Your task to perform on an android device: Open CNN.com Image 0: 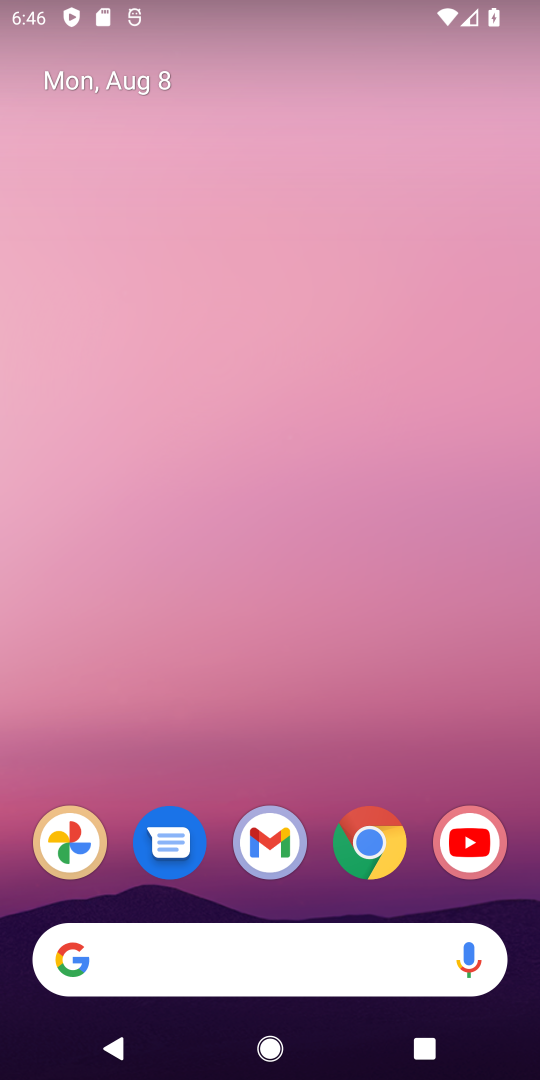
Step 0: drag from (226, 856) to (125, 140)
Your task to perform on an android device: Open CNN.com Image 1: 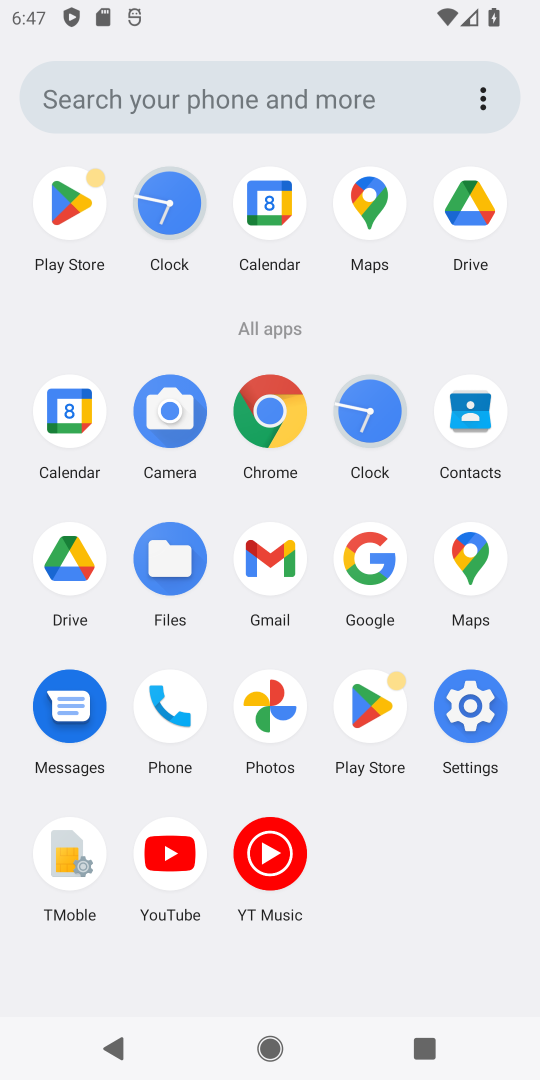
Step 1: click (276, 407)
Your task to perform on an android device: Open CNN.com Image 2: 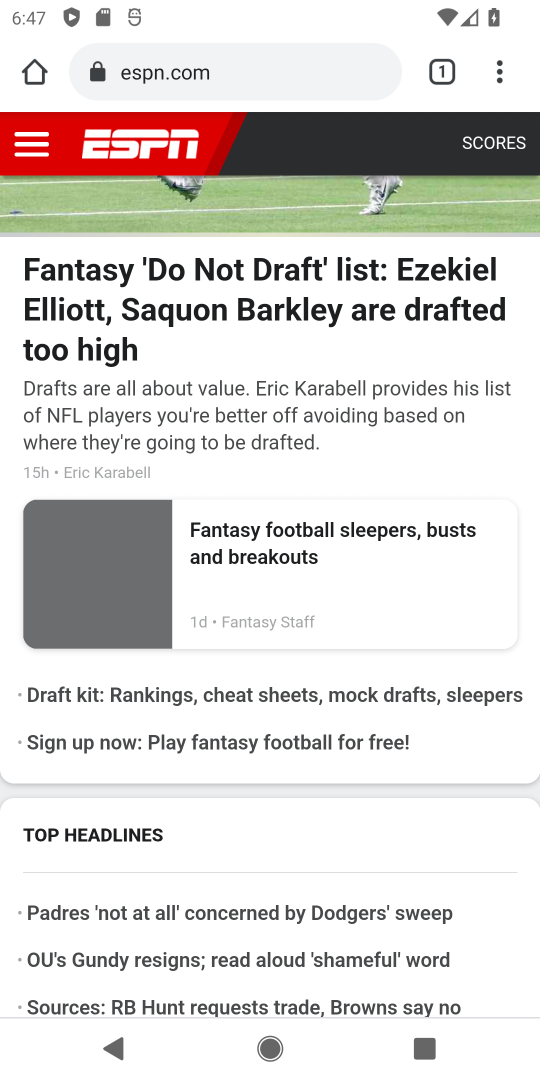
Step 2: click (423, 77)
Your task to perform on an android device: Open CNN.com Image 3: 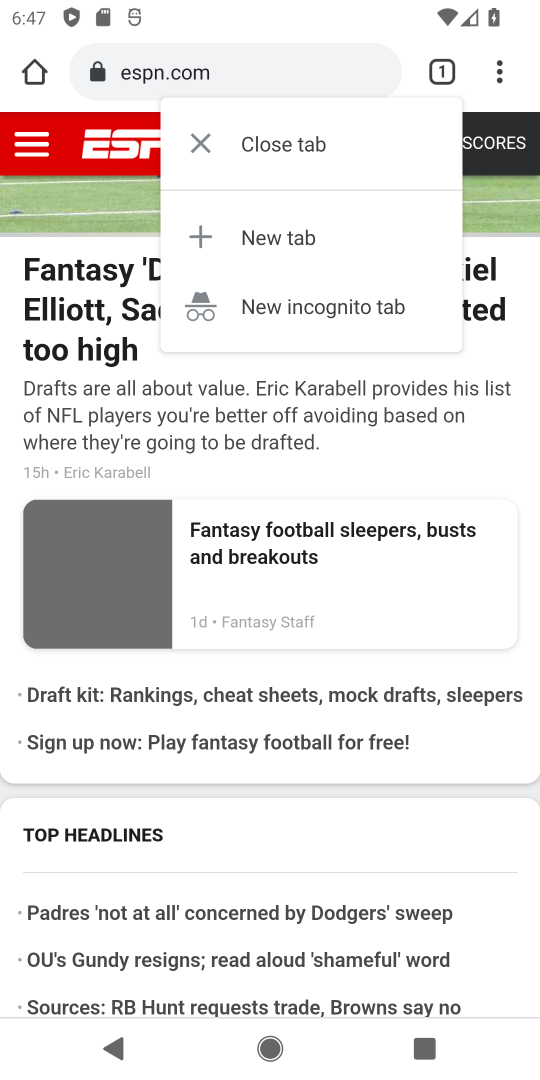
Step 3: click (290, 258)
Your task to perform on an android device: Open CNN.com Image 4: 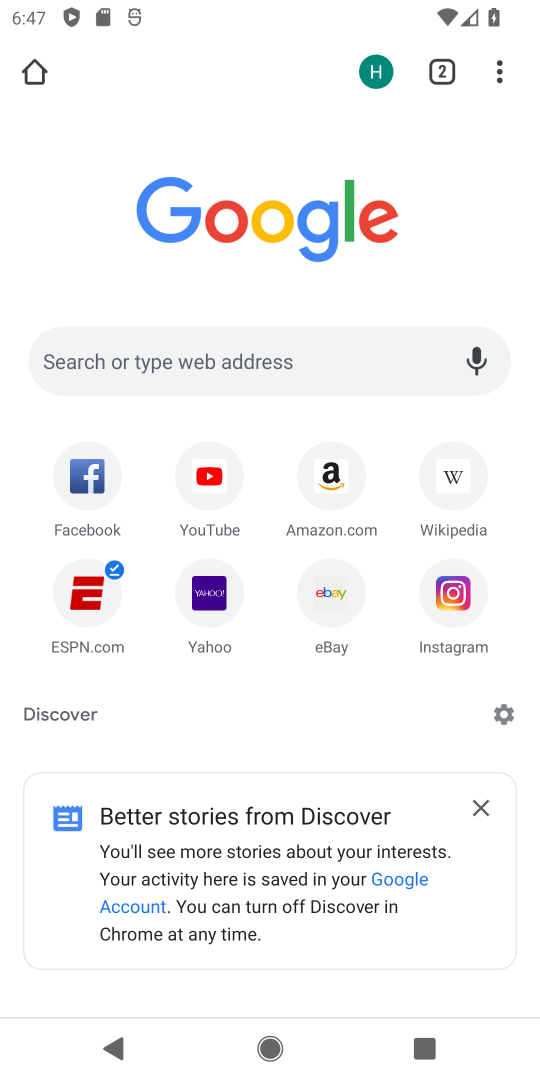
Step 4: click (213, 344)
Your task to perform on an android device: Open CNN.com Image 5: 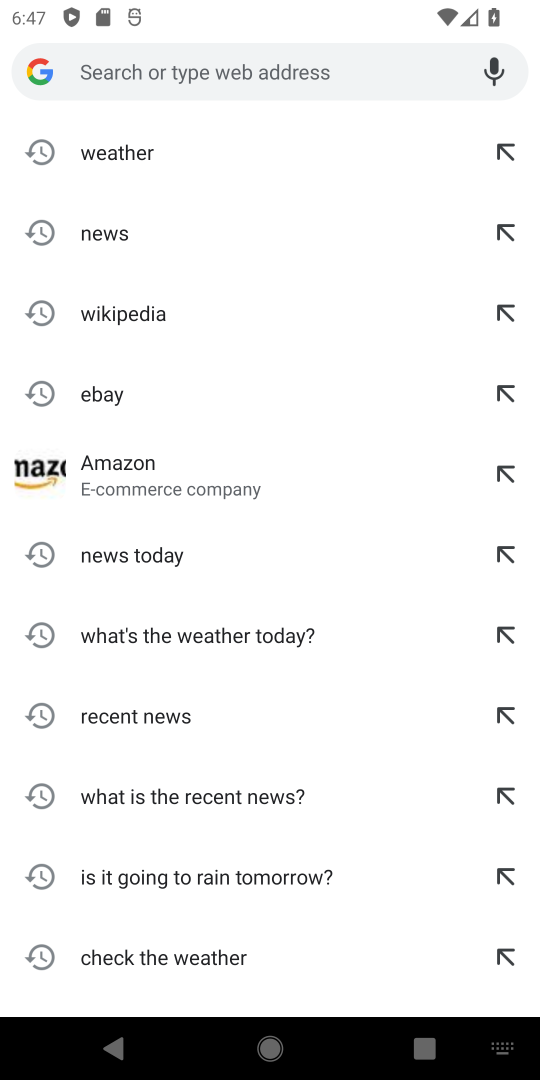
Step 5: type "CNN.com"
Your task to perform on an android device: Open CNN.com Image 6: 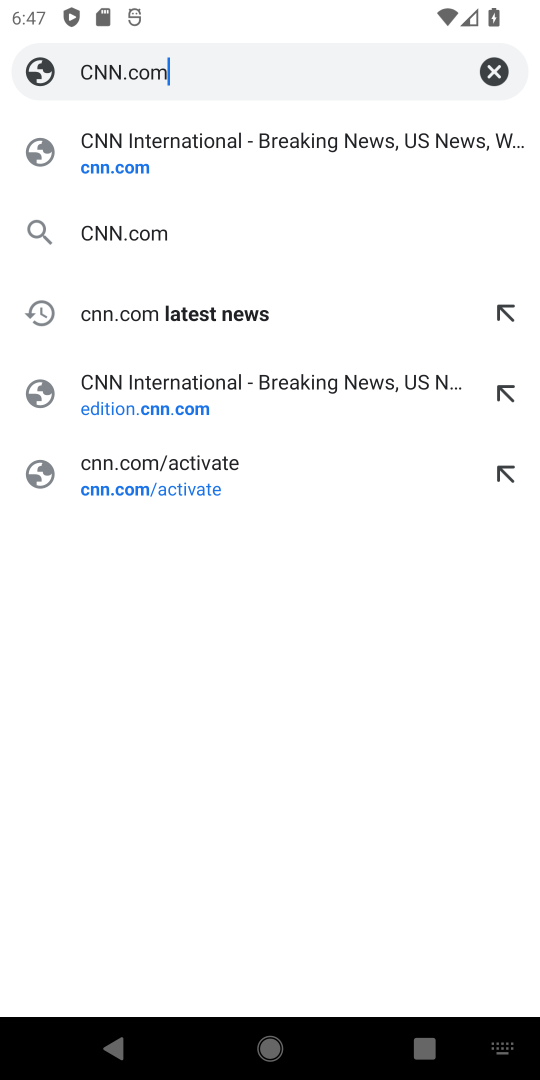
Step 6: click (127, 134)
Your task to perform on an android device: Open CNN.com Image 7: 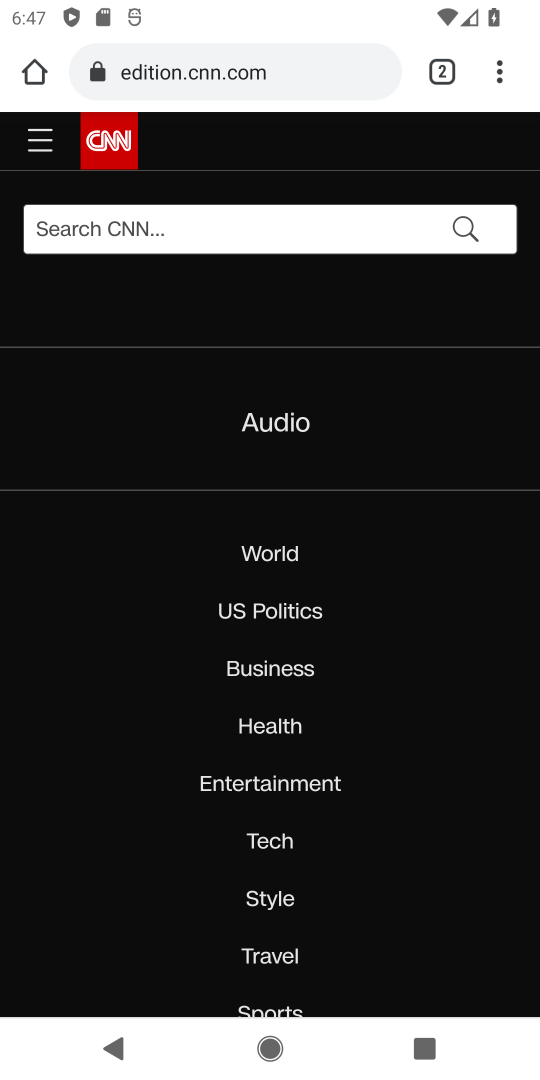
Step 7: task complete